Your task to perform on an android device: Turn on the flashlight Image 0: 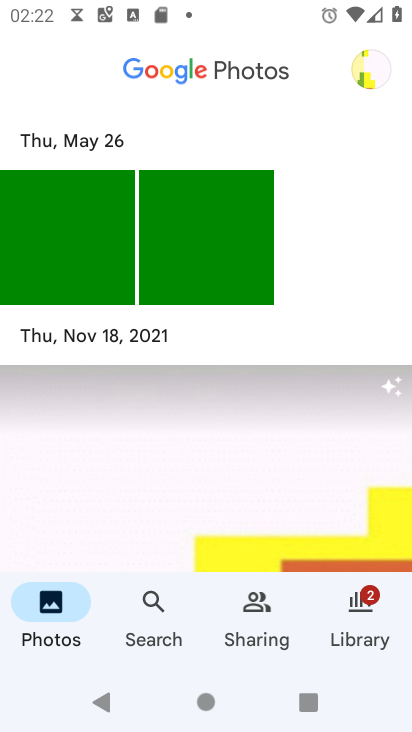
Step 0: press home button
Your task to perform on an android device: Turn on the flashlight Image 1: 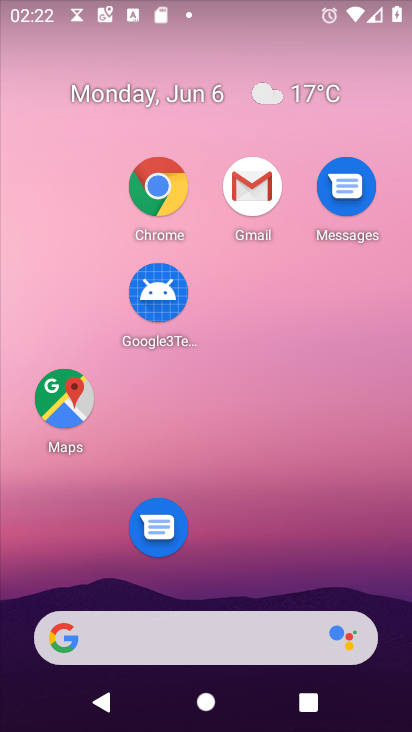
Step 1: drag from (296, 546) to (222, 73)
Your task to perform on an android device: Turn on the flashlight Image 2: 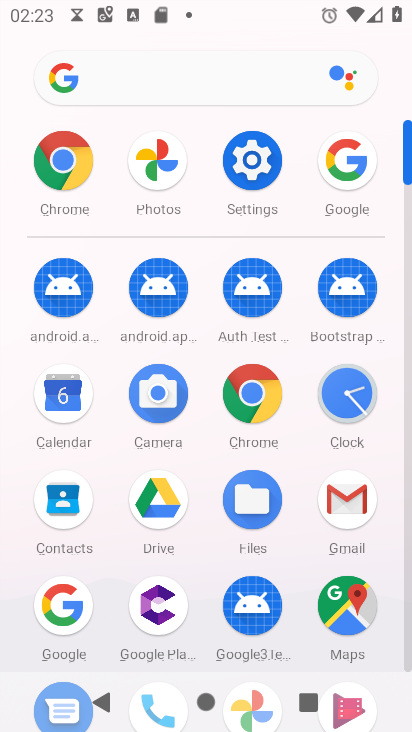
Step 2: click (252, 170)
Your task to perform on an android device: Turn on the flashlight Image 3: 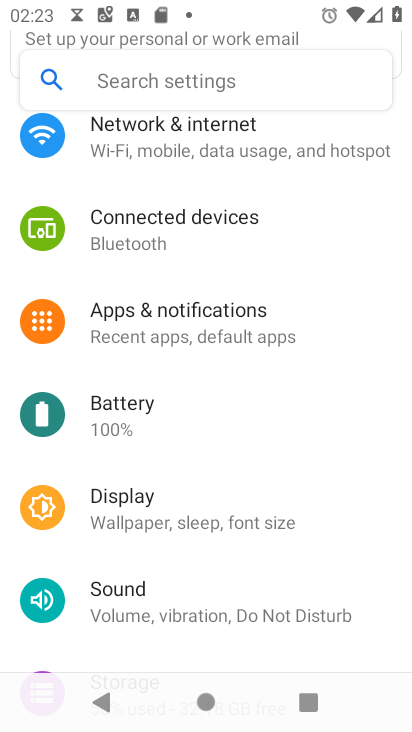
Step 3: click (123, 518)
Your task to perform on an android device: Turn on the flashlight Image 4: 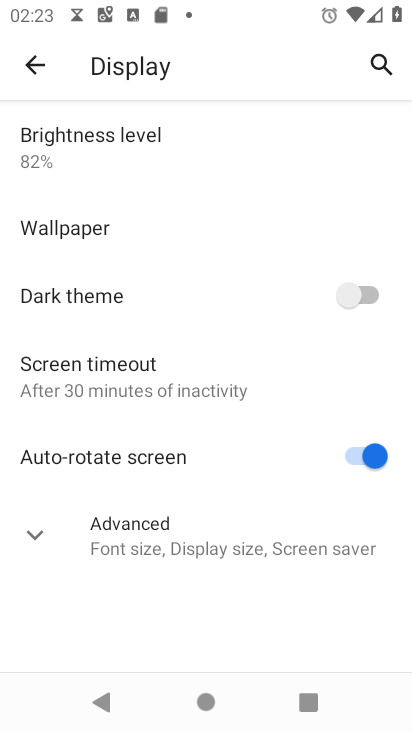
Step 4: click (155, 511)
Your task to perform on an android device: Turn on the flashlight Image 5: 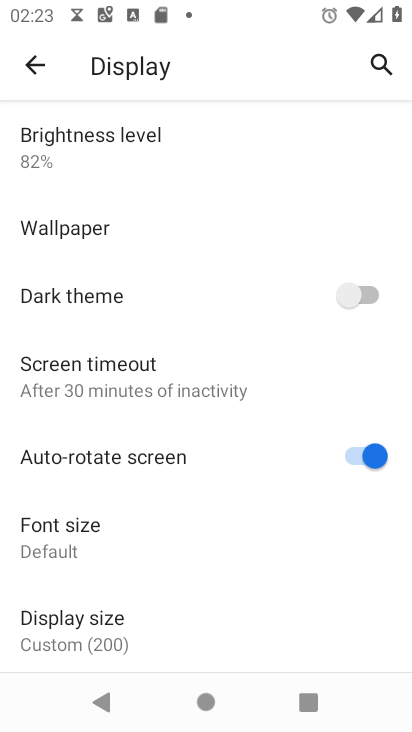
Step 5: task complete